Your task to perform on an android device: add a contact in the contacts app Image 0: 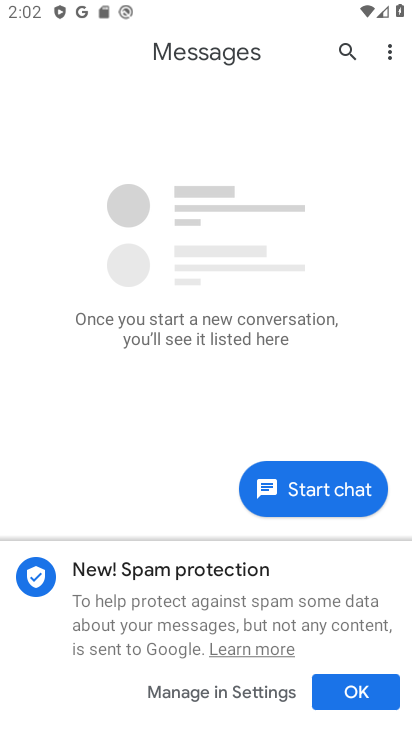
Step 0: press home button
Your task to perform on an android device: add a contact in the contacts app Image 1: 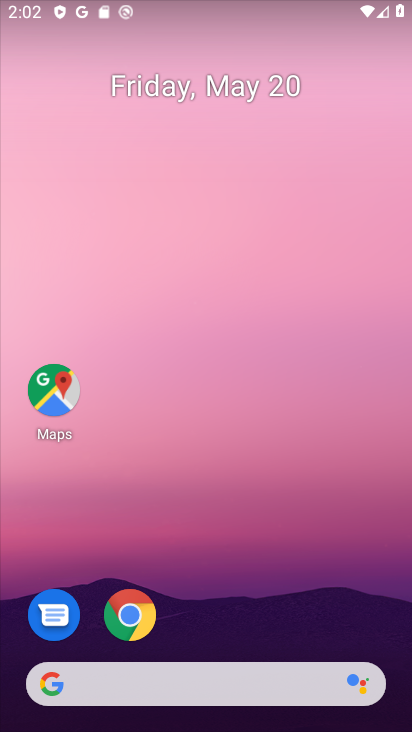
Step 1: drag from (263, 619) to (258, 21)
Your task to perform on an android device: add a contact in the contacts app Image 2: 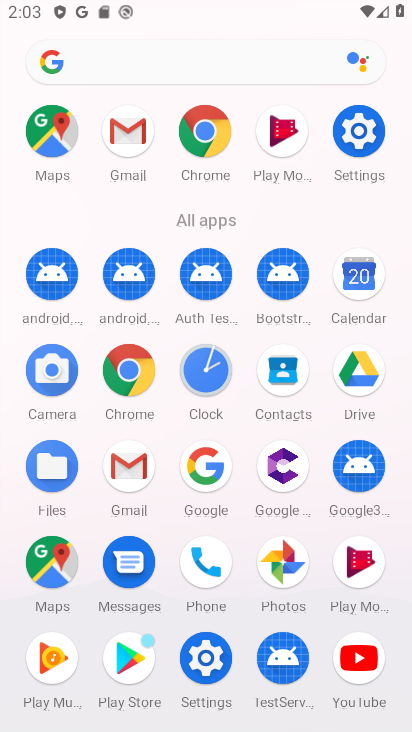
Step 2: click (279, 382)
Your task to perform on an android device: add a contact in the contacts app Image 3: 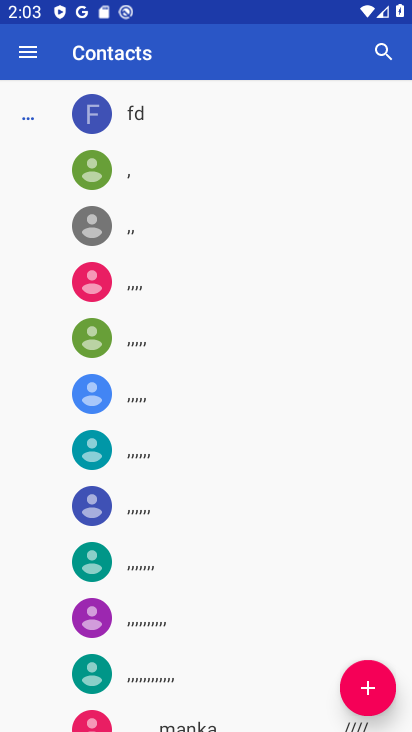
Step 3: click (370, 677)
Your task to perform on an android device: add a contact in the contacts app Image 4: 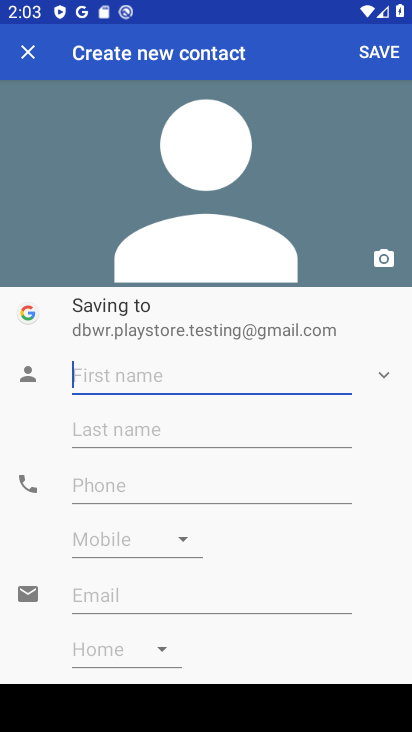
Step 4: click (261, 386)
Your task to perform on an android device: add a contact in the contacts app Image 5: 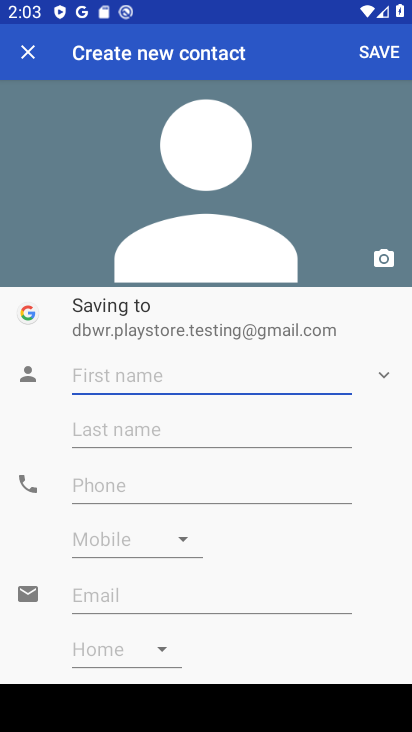
Step 5: type "hkjhjh"
Your task to perform on an android device: add a contact in the contacts app Image 6: 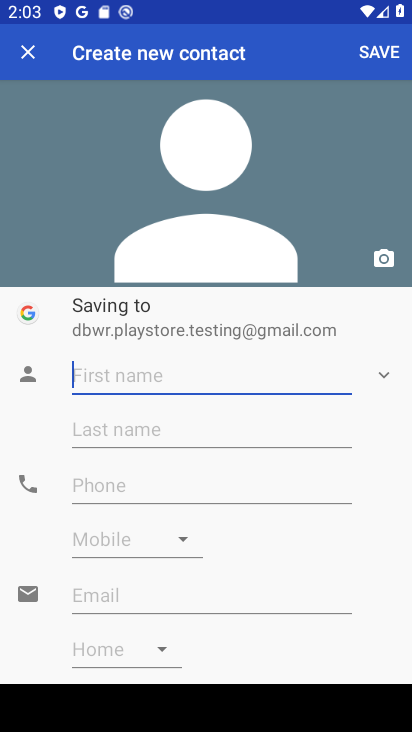
Step 6: click (243, 480)
Your task to perform on an android device: add a contact in the contacts app Image 7: 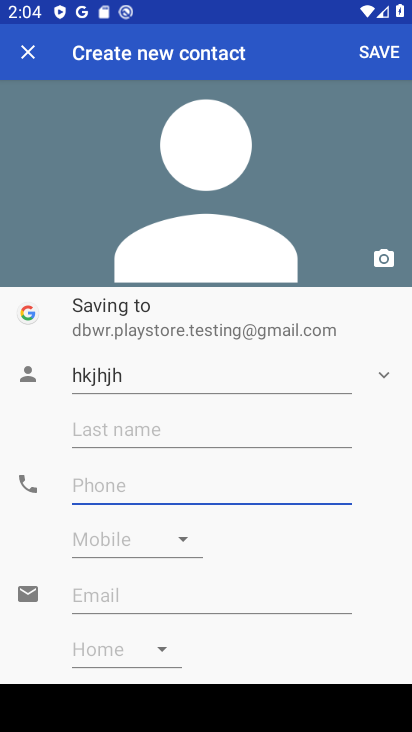
Step 7: type "987899787"
Your task to perform on an android device: add a contact in the contacts app Image 8: 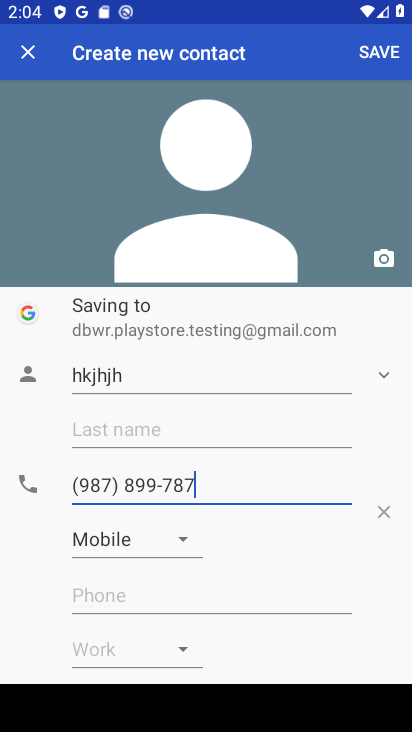
Step 8: click (382, 55)
Your task to perform on an android device: add a contact in the contacts app Image 9: 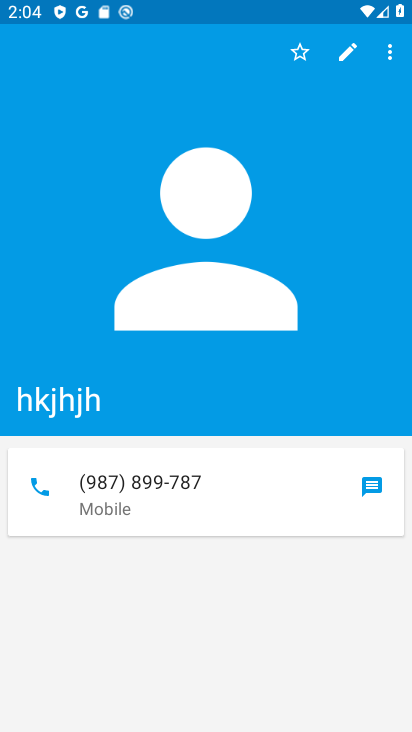
Step 9: task complete